Your task to perform on an android device: turn off location history Image 0: 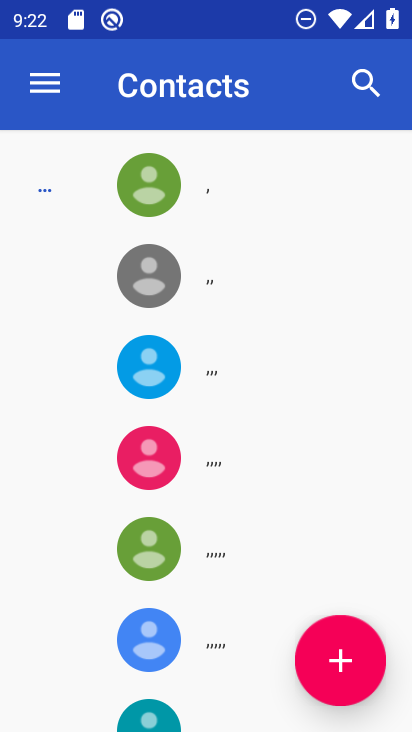
Step 0: press home button
Your task to perform on an android device: turn off location history Image 1: 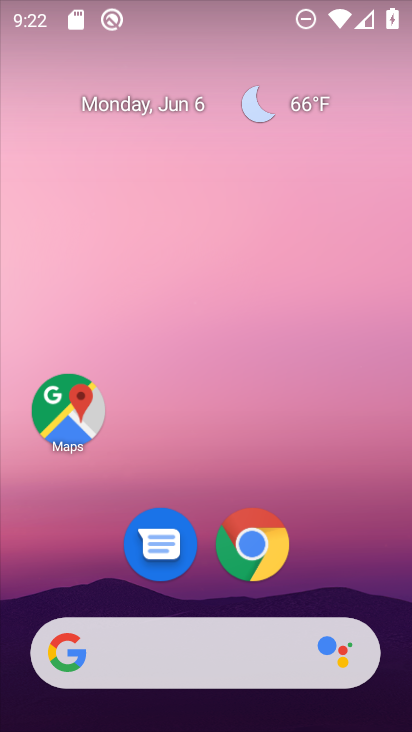
Step 1: drag from (193, 468) to (223, 141)
Your task to perform on an android device: turn off location history Image 2: 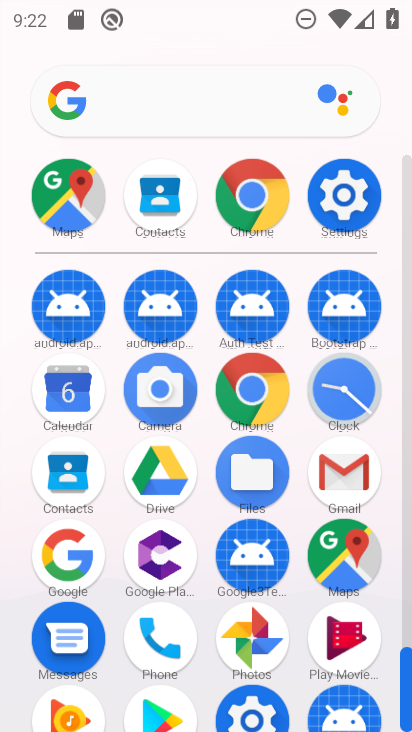
Step 2: click (346, 195)
Your task to perform on an android device: turn off location history Image 3: 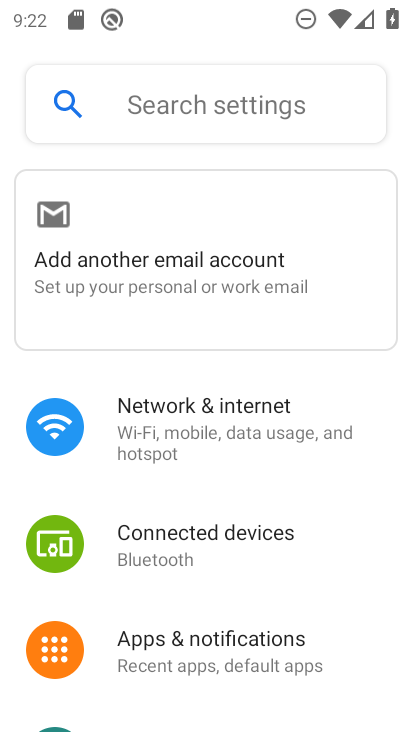
Step 3: drag from (241, 569) to (256, 245)
Your task to perform on an android device: turn off location history Image 4: 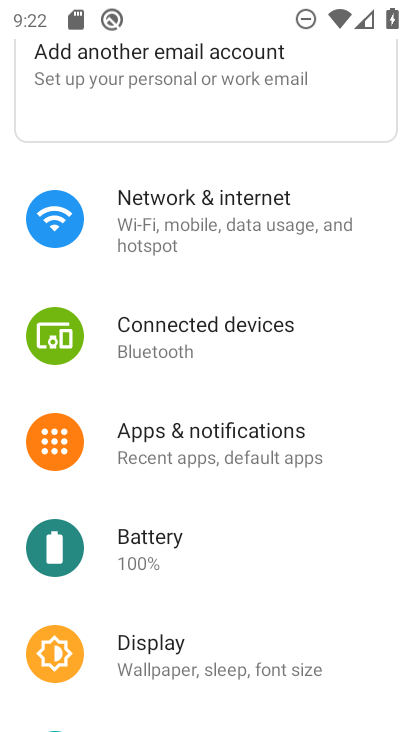
Step 4: drag from (217, 650) to (261, 324)
Your task to perform on an android device: turn off location history Image 5: 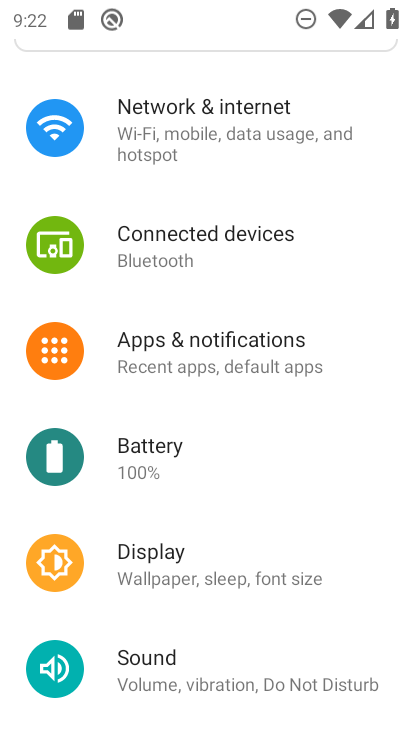
Step 5: drag from (217, 673) to (240, 316)
Your task to perform on an android device: turn off location history Image 6: 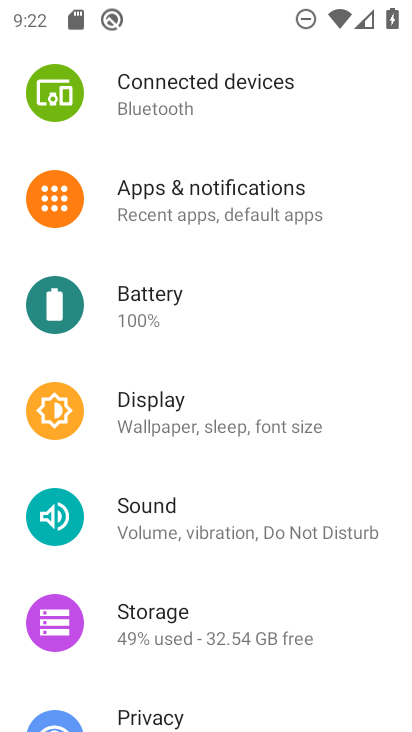
Step 6: drag from (270, 686) to (293, 289)
Your task to perform on an android device: turn off location history Image 7: 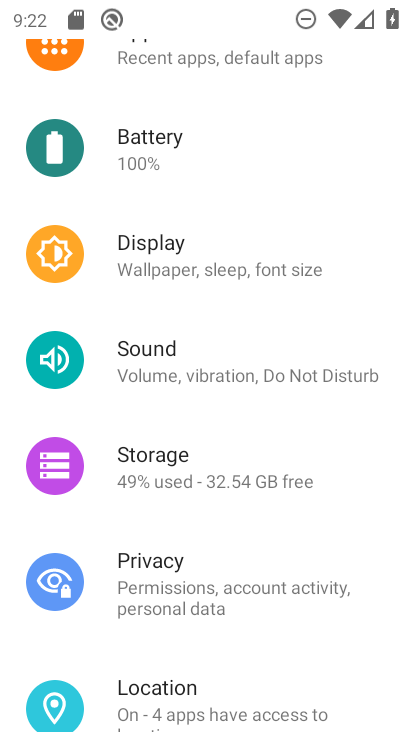
Step 7: click (244, 698)
Your task to perform on an android device: turn off location history Image 8: 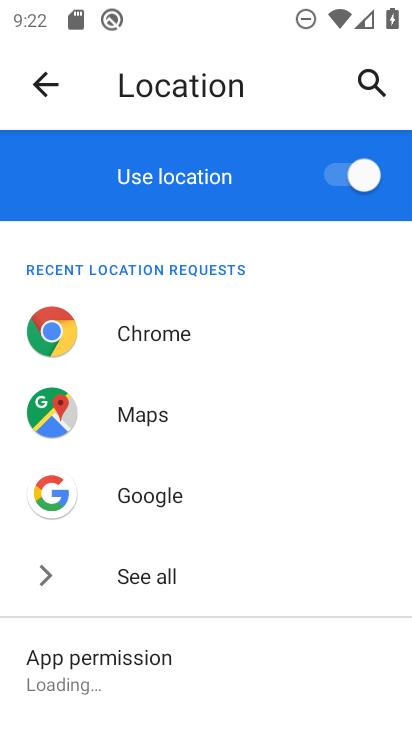
Step 8: drag from (211, 435) to (305, 139)
Your task to perform on an android device: turn off location history Image 9: 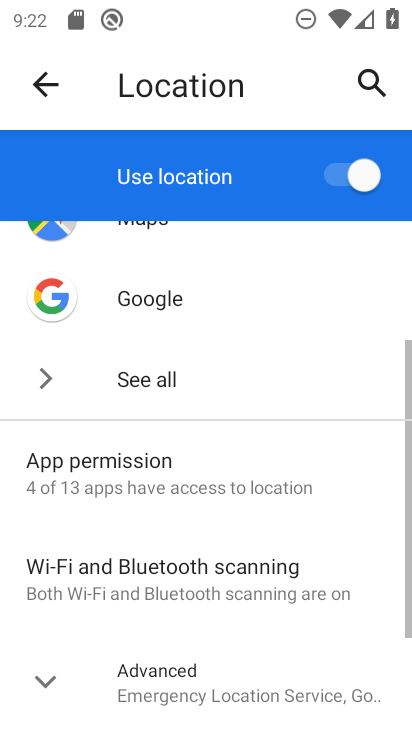
Step 9: drag from (177, 623) to (222, 259)
Your task to perform on an android device: turn off location history Image 10: 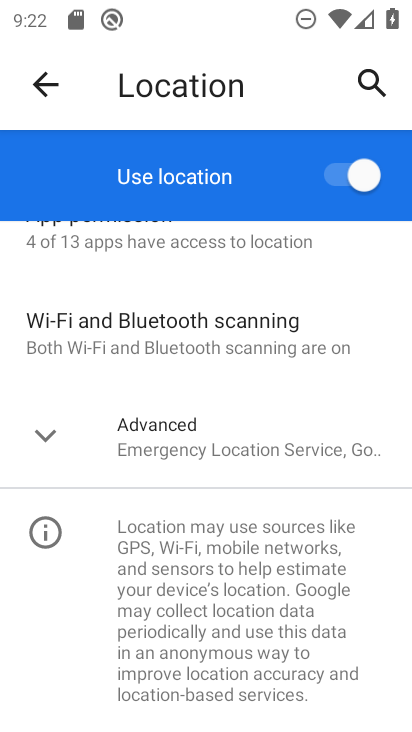
Step 10: click (52, 436)
Your task to perform on an android device: turn off location history Image 11: 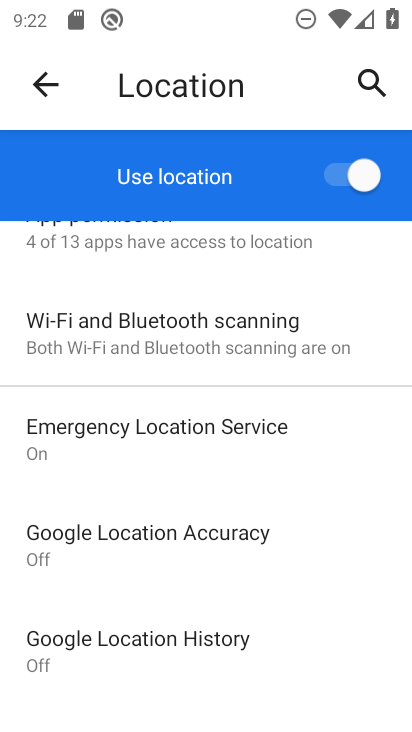
Step 11: task complete